Your task to perform on an android device: Search for "razer blade" on newegg, select the first entry, and add it to the cart. Image 0: 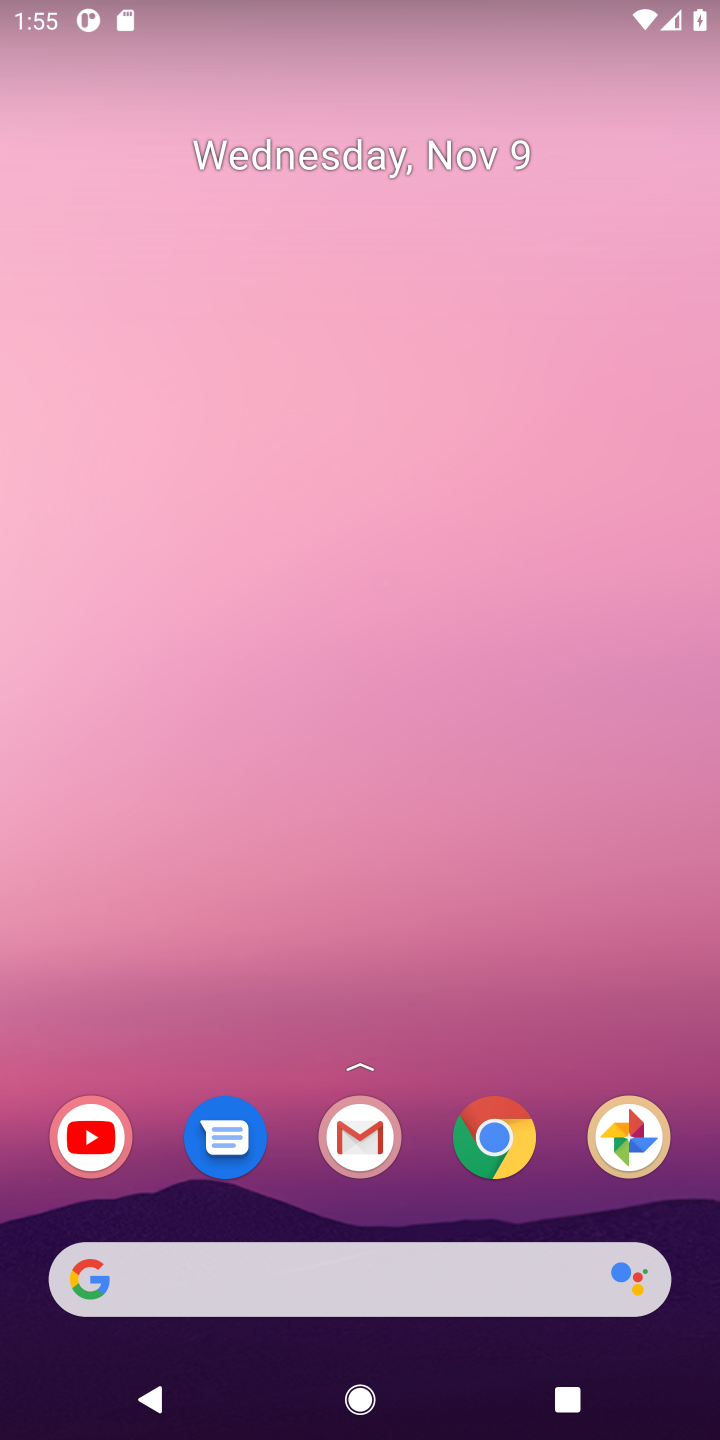
Step 0: drag from (358, 1043) to (403, 238)
Your task to perform on an android device: Search for "razer blade" on newegg, select the first entry, and add it to the cart. Image 1: 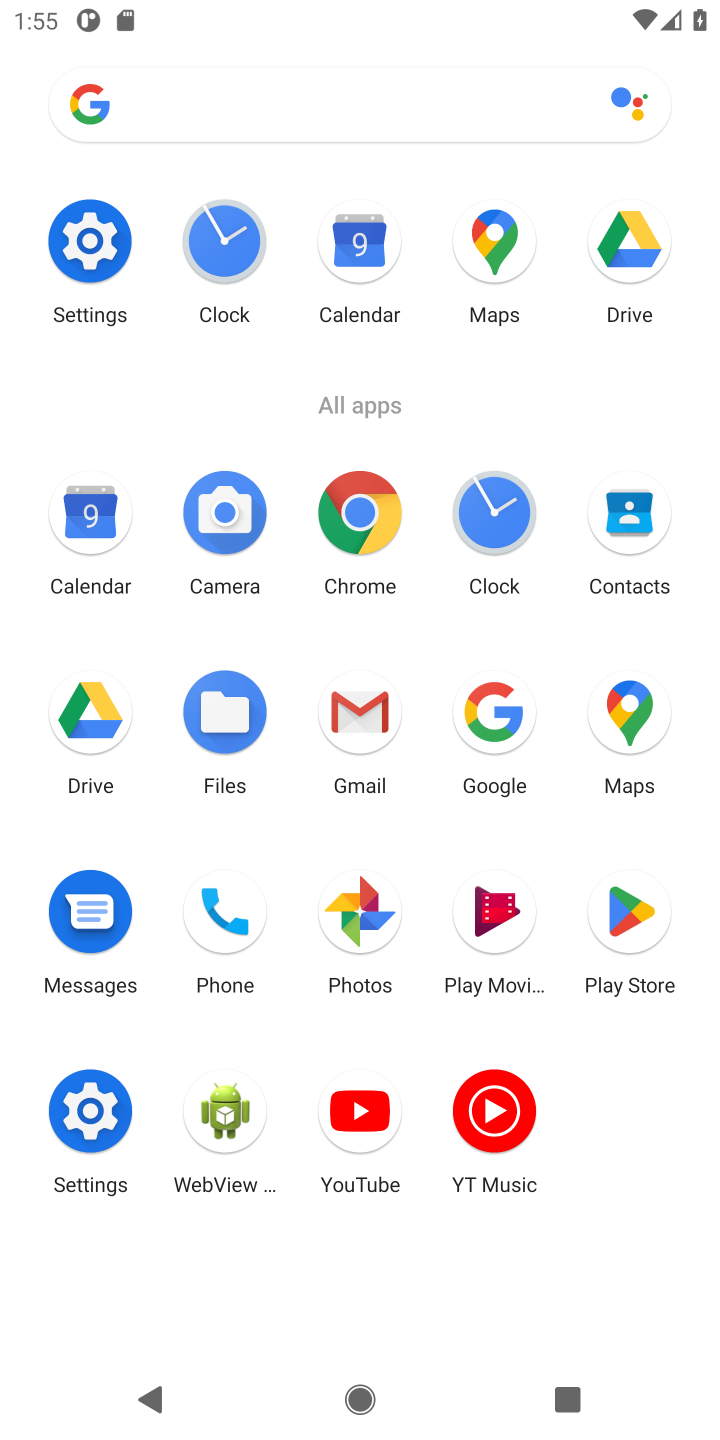
Step 1: click (381, 525)
Your task to perform on an android device: Search for "razer blade" on newegg, select the first entry, and add it to the cart. Image 2: 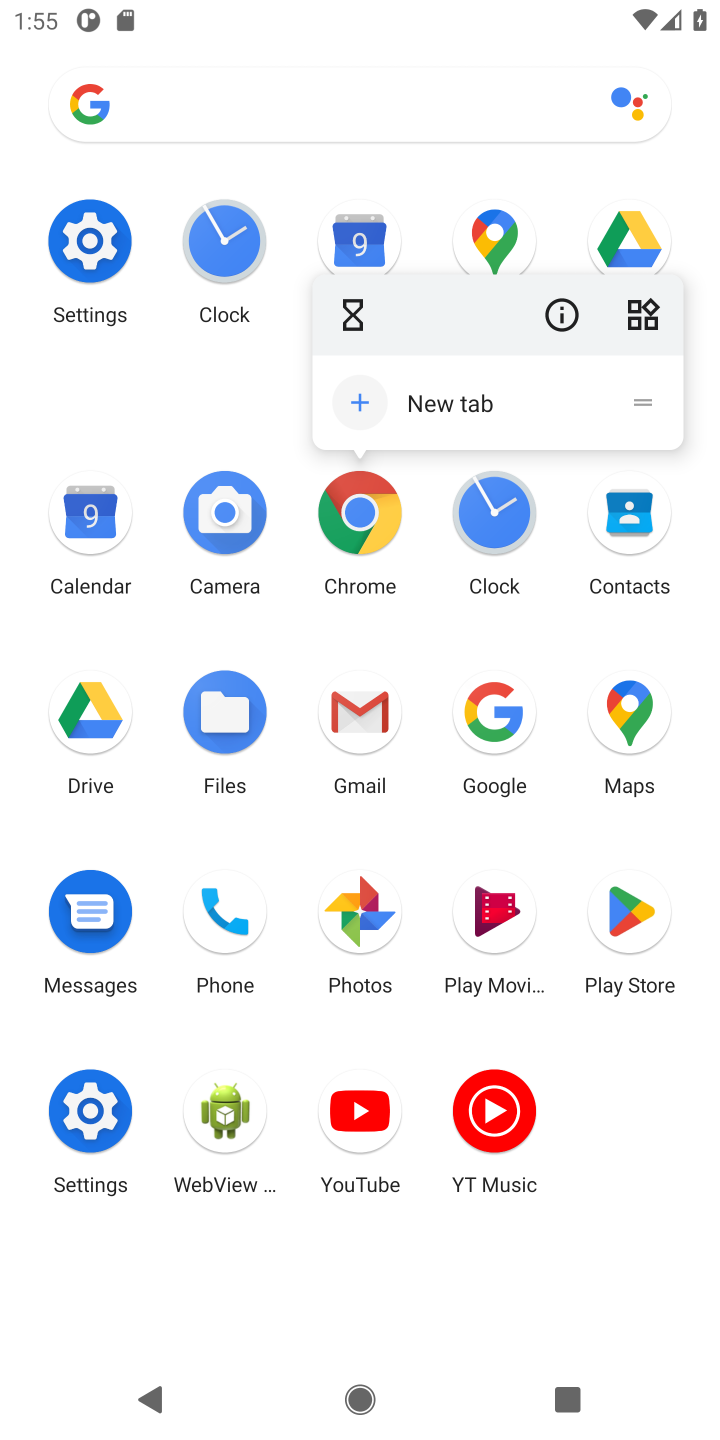
Step 2: click (381, 525)
Your task to perform on an android device: Search for "razer blade" on newegg, select the first entry, and add it to the cart. Image 3: 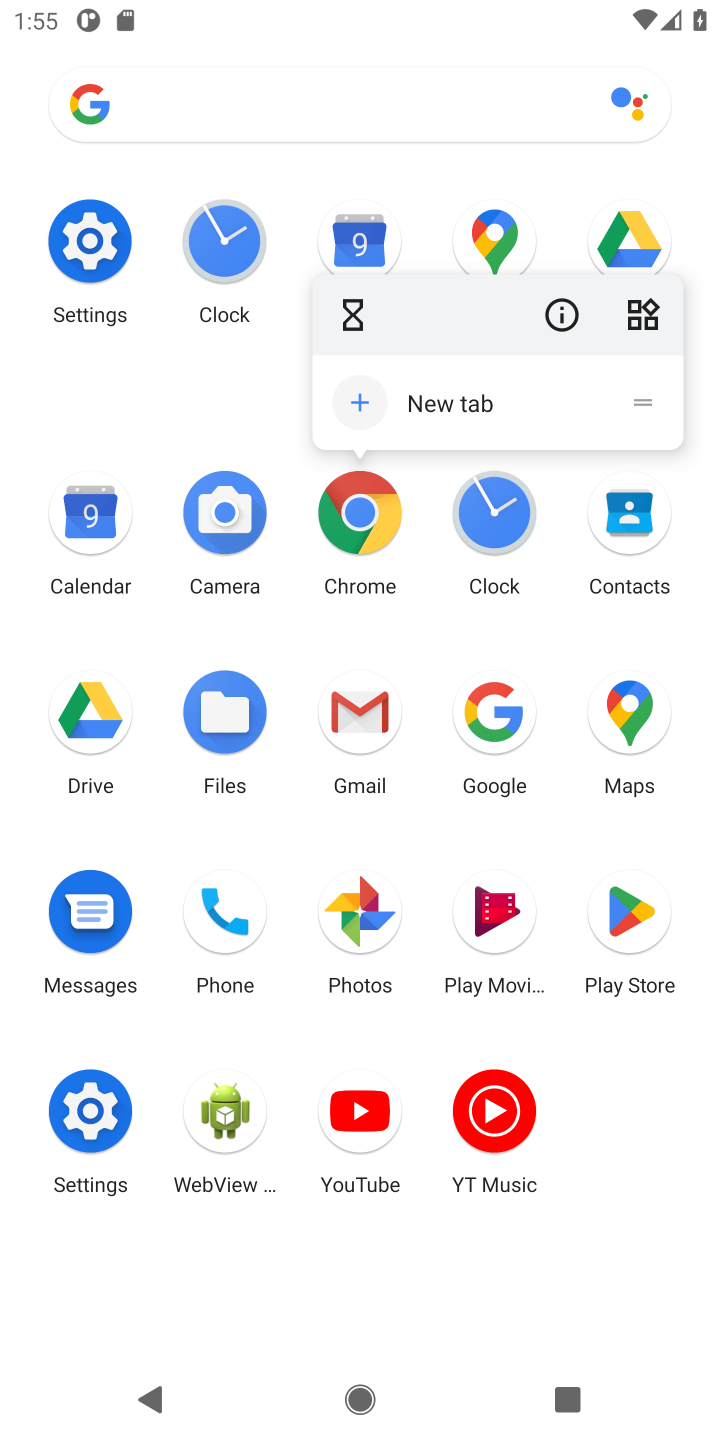
Step 3: click (381, 525)
Your task to perform on an android device: Search for "razer blade" on newegg, select the first entry, and add it to the cart. Image 4: 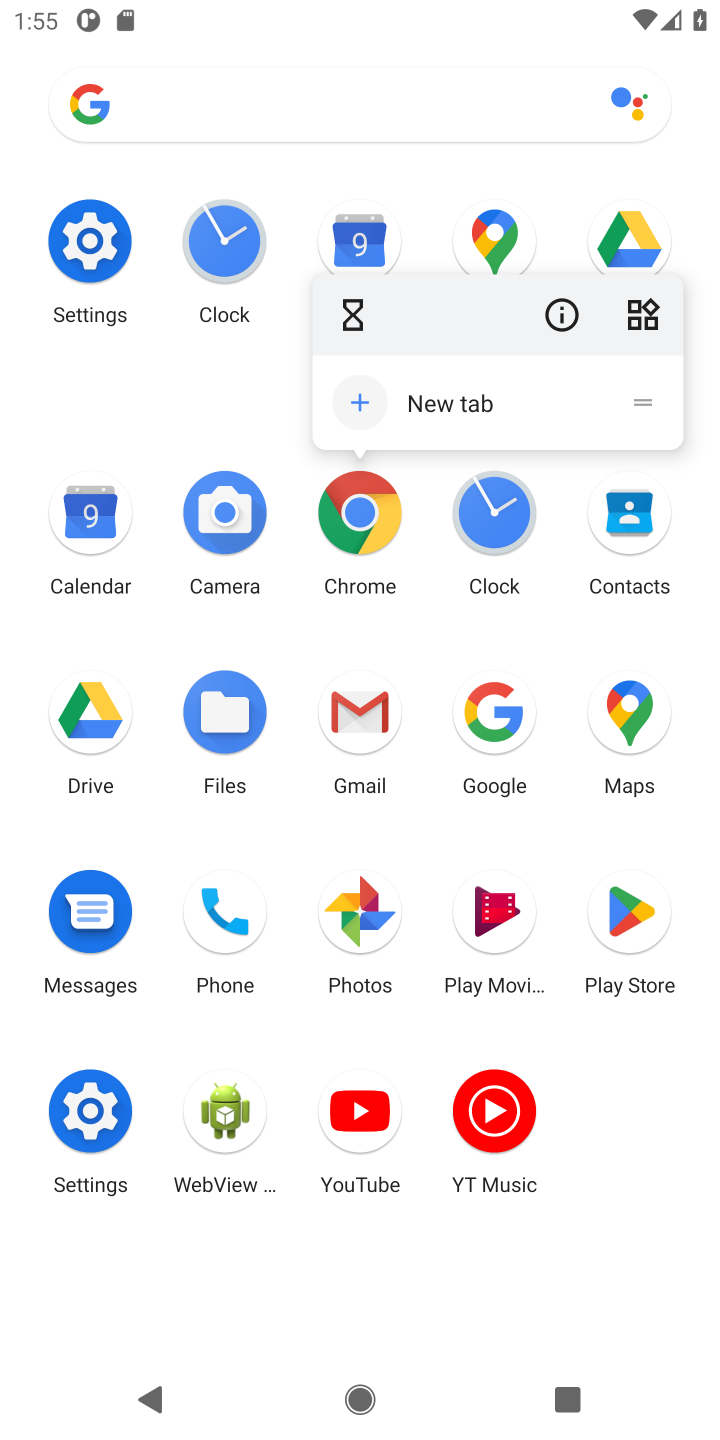
Step 4: click (361, 517)
Your task to perform on an android device: Search for "razer blade" on newegg, select the first entry, and add it to the cart. Image 5: 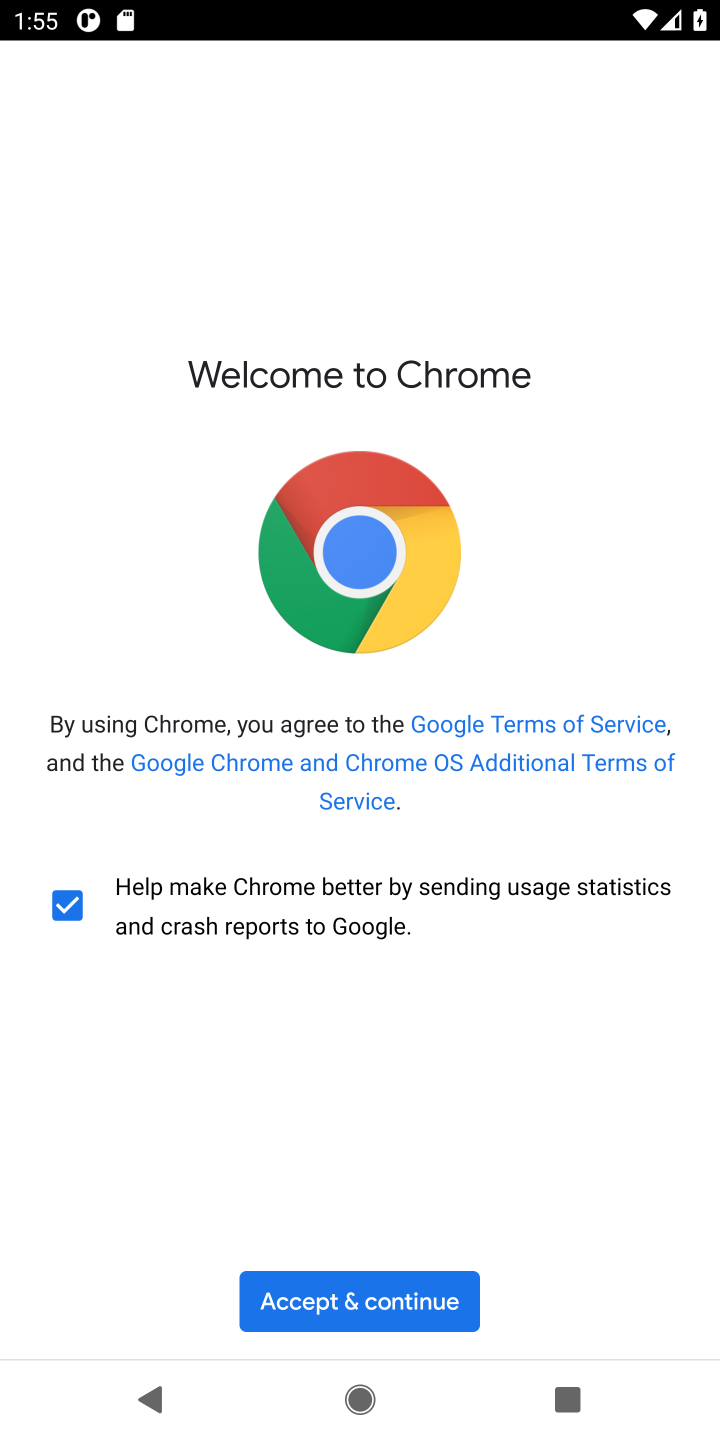
Step 5: click (313, 1278)
Your task to perform on an android device: Search for "razer blade" on newegg, select the first entry, and add it to the cart. Image 6: 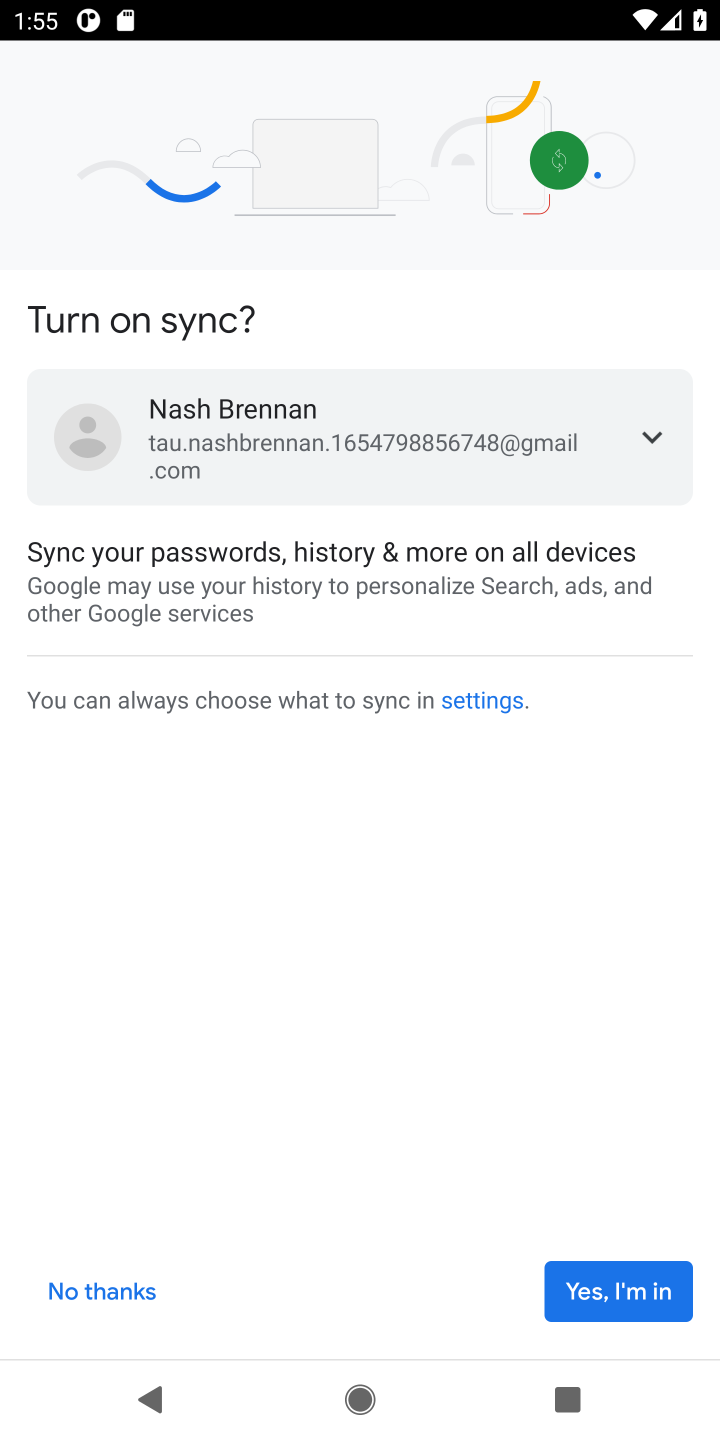
Step 6: click (589, 1283)
Your task to perform on an android device: Search for "razer blade" on newegg, select the first entry, and add it to the cart. Image 7: 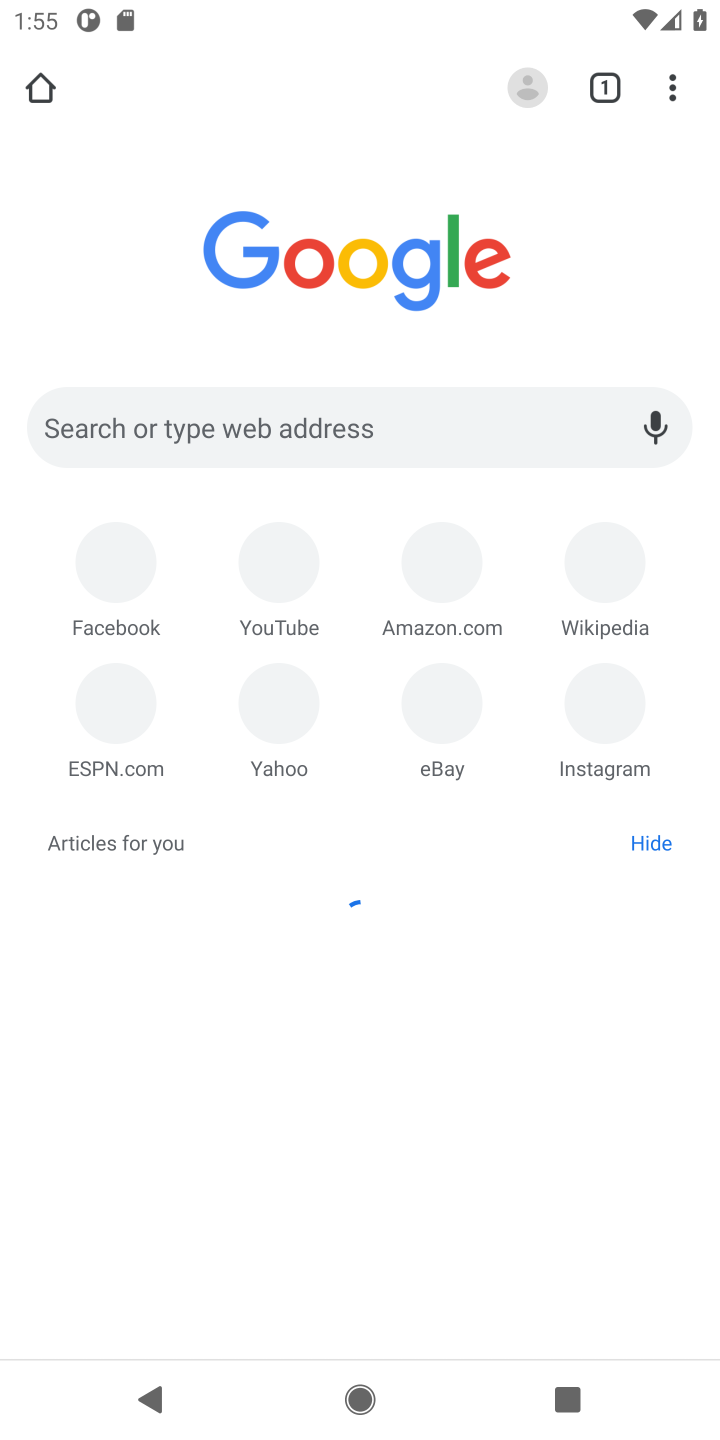
Step 7: click (342, 422)
Your task to perform on an android device: Search for "razer blade" on newegg, select the first entry, and add it to the cart. Image 8: 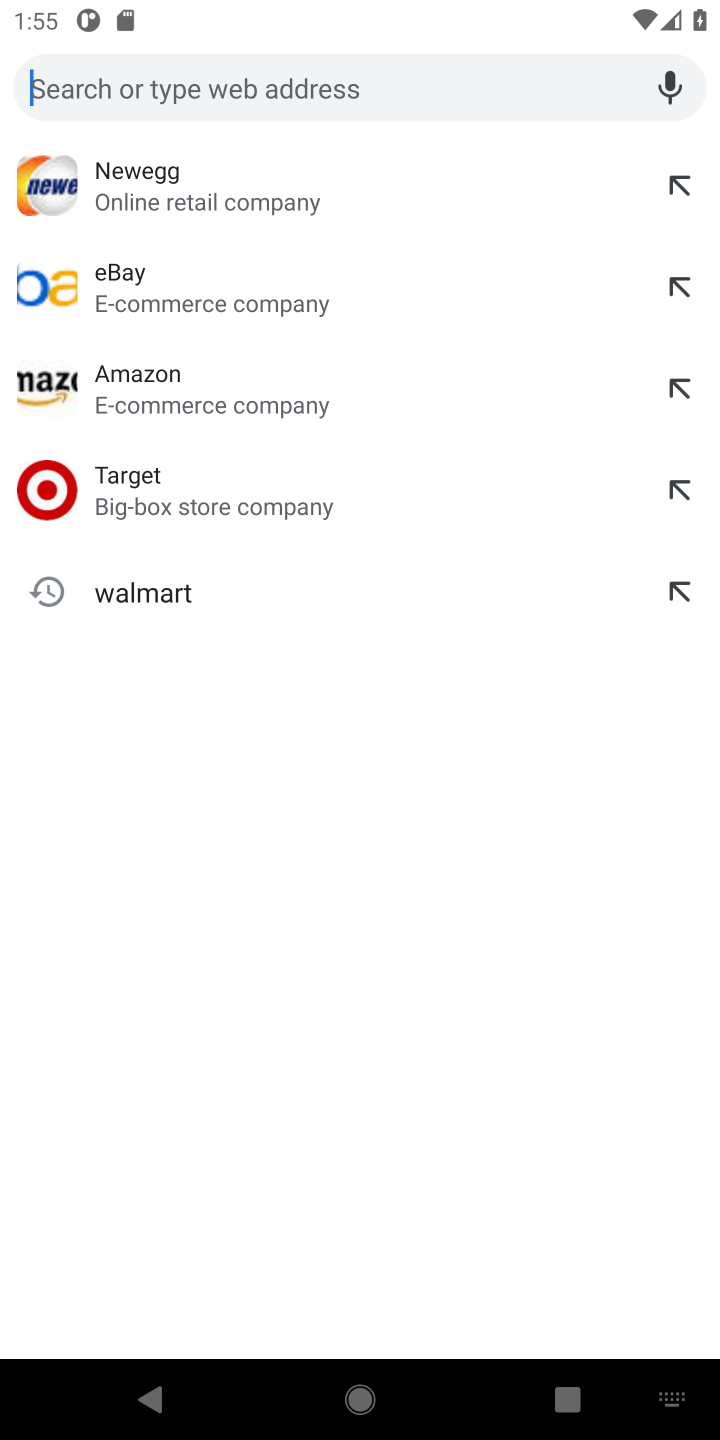
Step 8: type "newegg"
Your task to perform on an android device: Search for "razer blade" on newegg, select the first entry, and add it to the cart. Image 9: 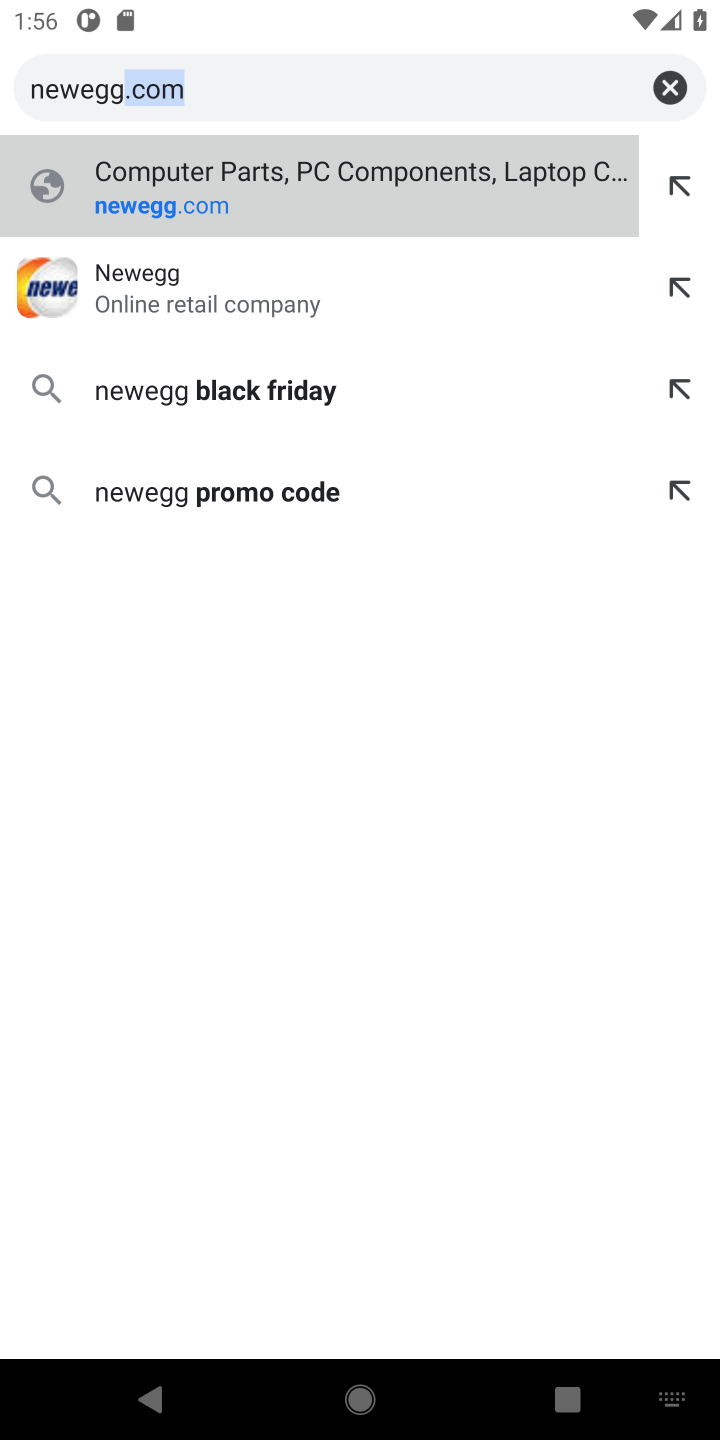
Step 9: press enter
Your task to perform on an android device: Search for "razer blade" on newegg, select the first entry, and add it to the cart. Image 10: 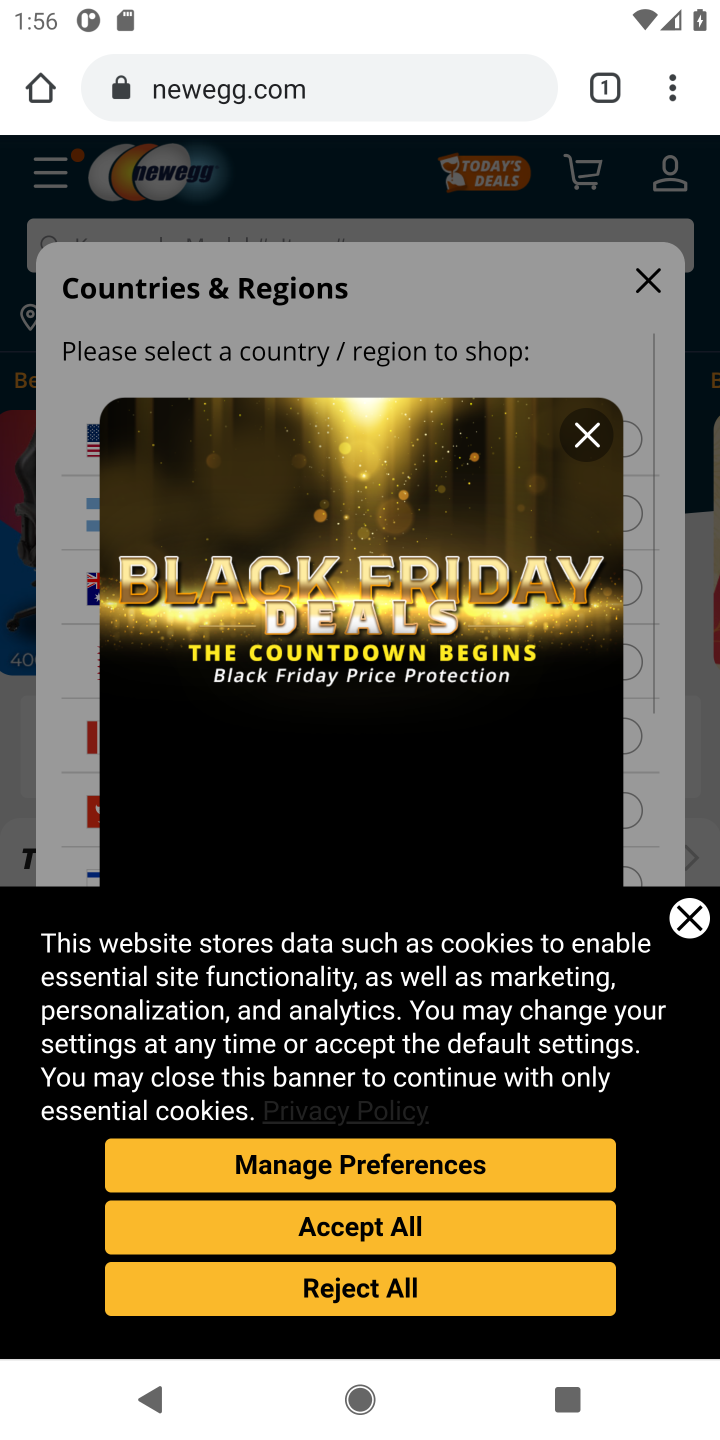
Step 10: click (317, 1241)
Your task to perform on an android device: Search for "razer blade" on newegg, select the first entry, and add it to the cart. Image 11: 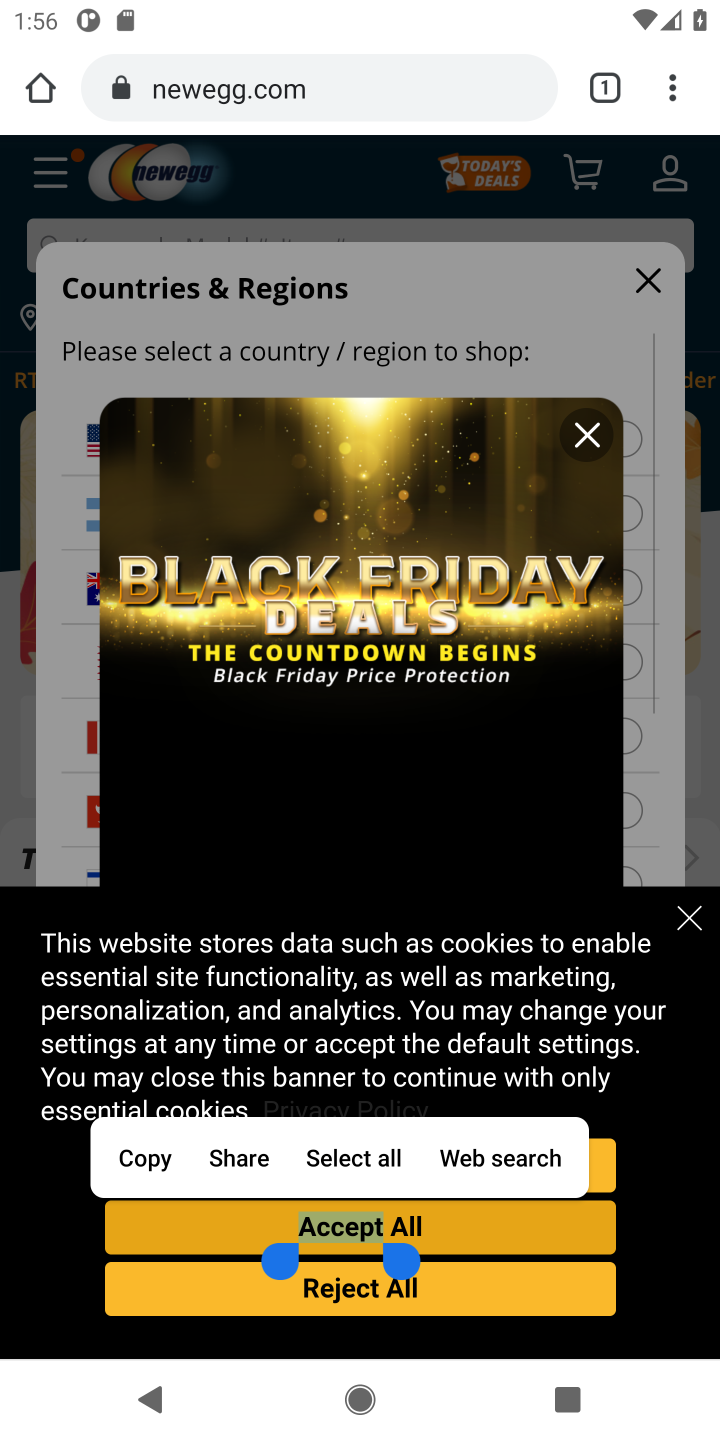
Step 11: click (173, 1212)
Your task to perform on an android device: Search for "razer blade" on newegg, select the first entry, and add it to the cart. Image 12: 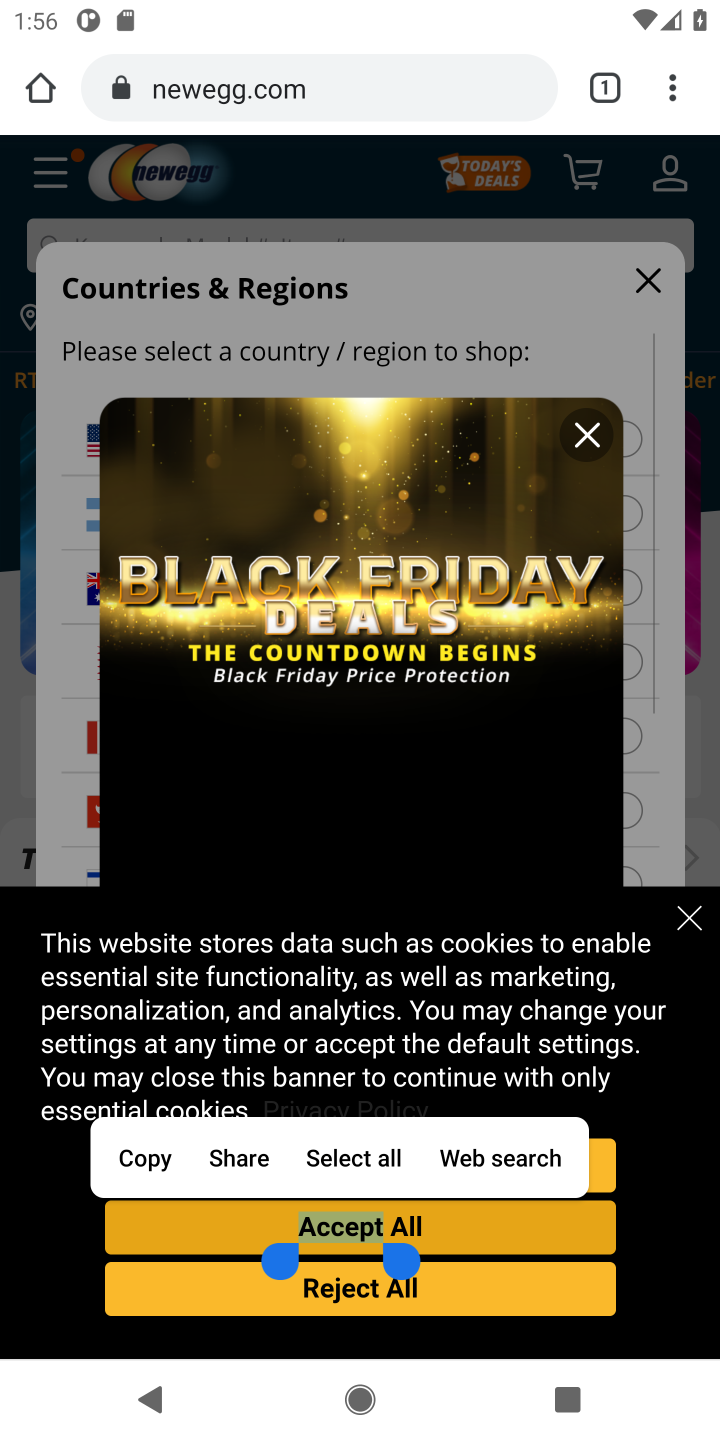
Step 12: click (220, 1241)
Your task to perform on an android device: Search for "razer blade" on newegg, select the first entry, and add it to the cart. Image 13: 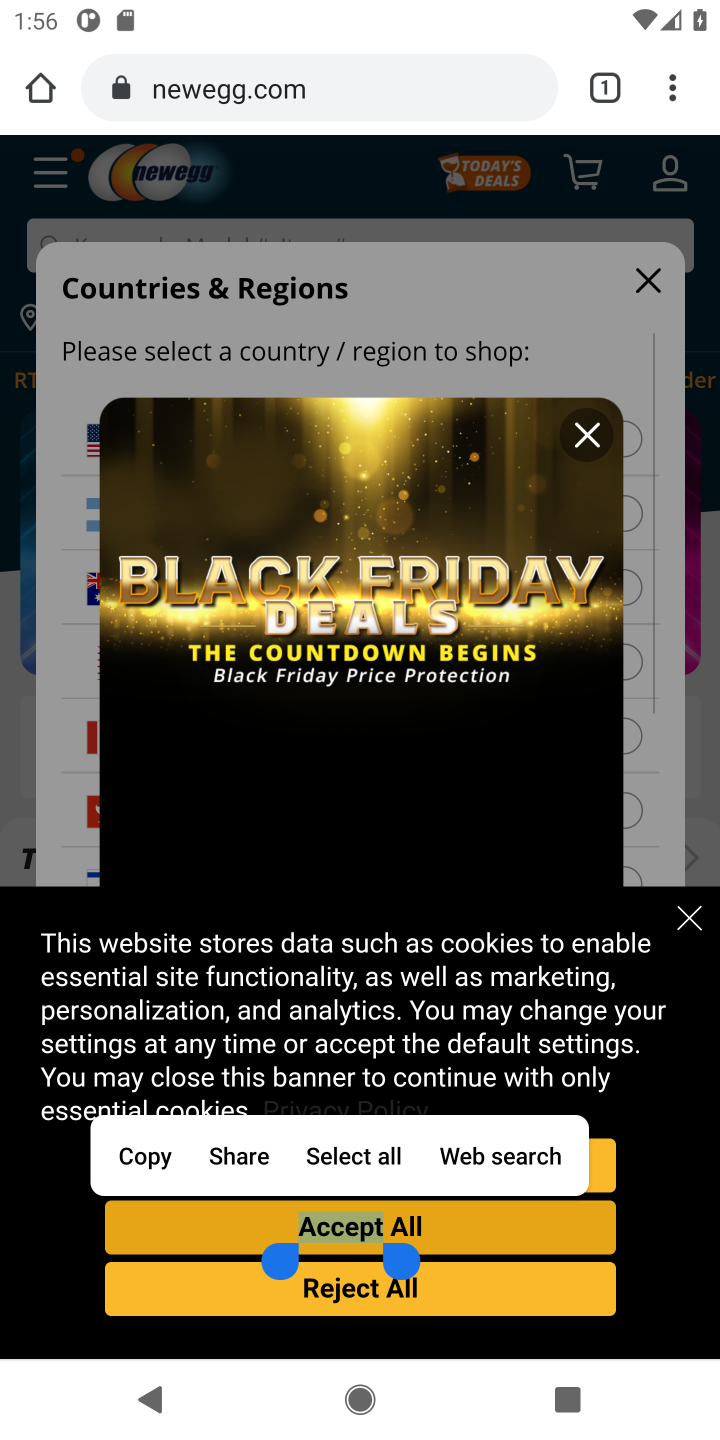
Step 13: click (219, 1241)
Your task to perform on an android device: Search for "razer blade" on newegg, select the first entry, and add it to the cart. Image 14: 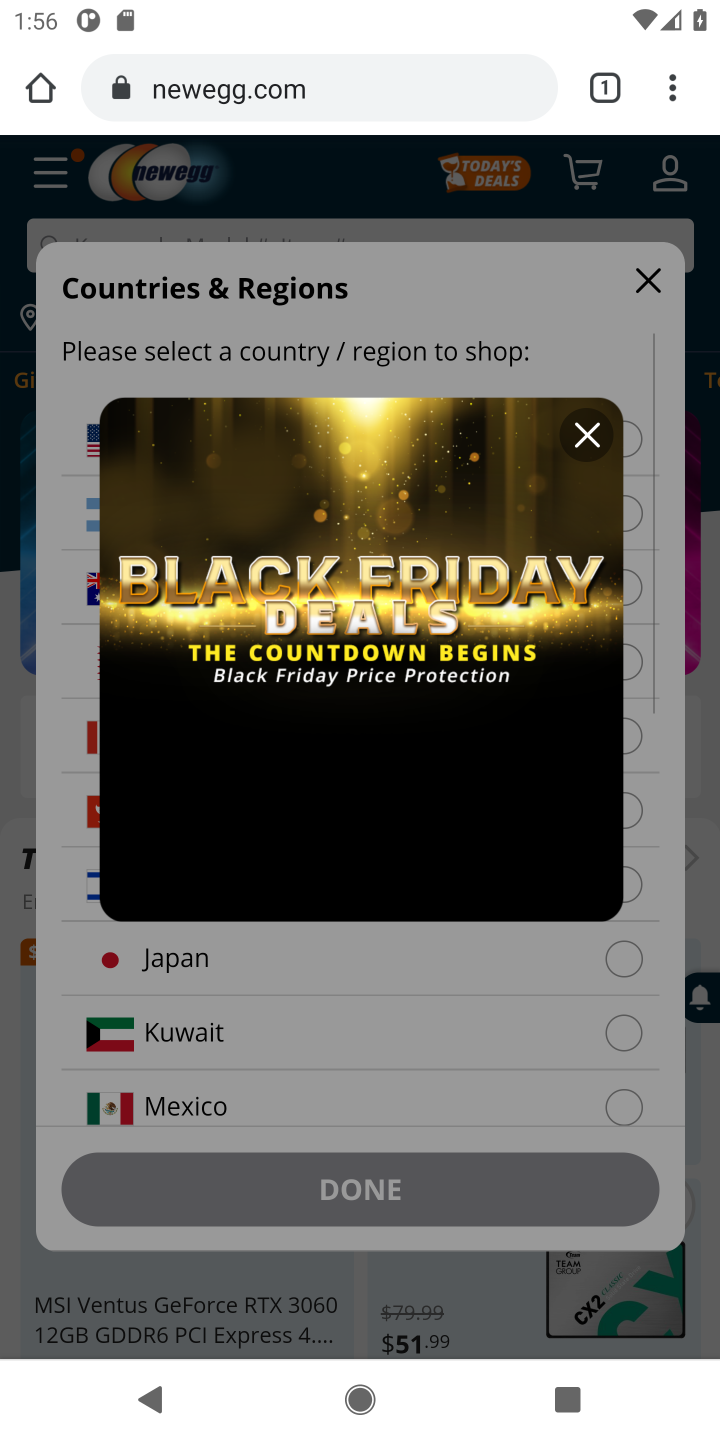
Step 14: click (570, 448)
Your task to perform on an android device: Search for "razer blade" on newegg, select the first entry, and add it to the cart. Image 15: 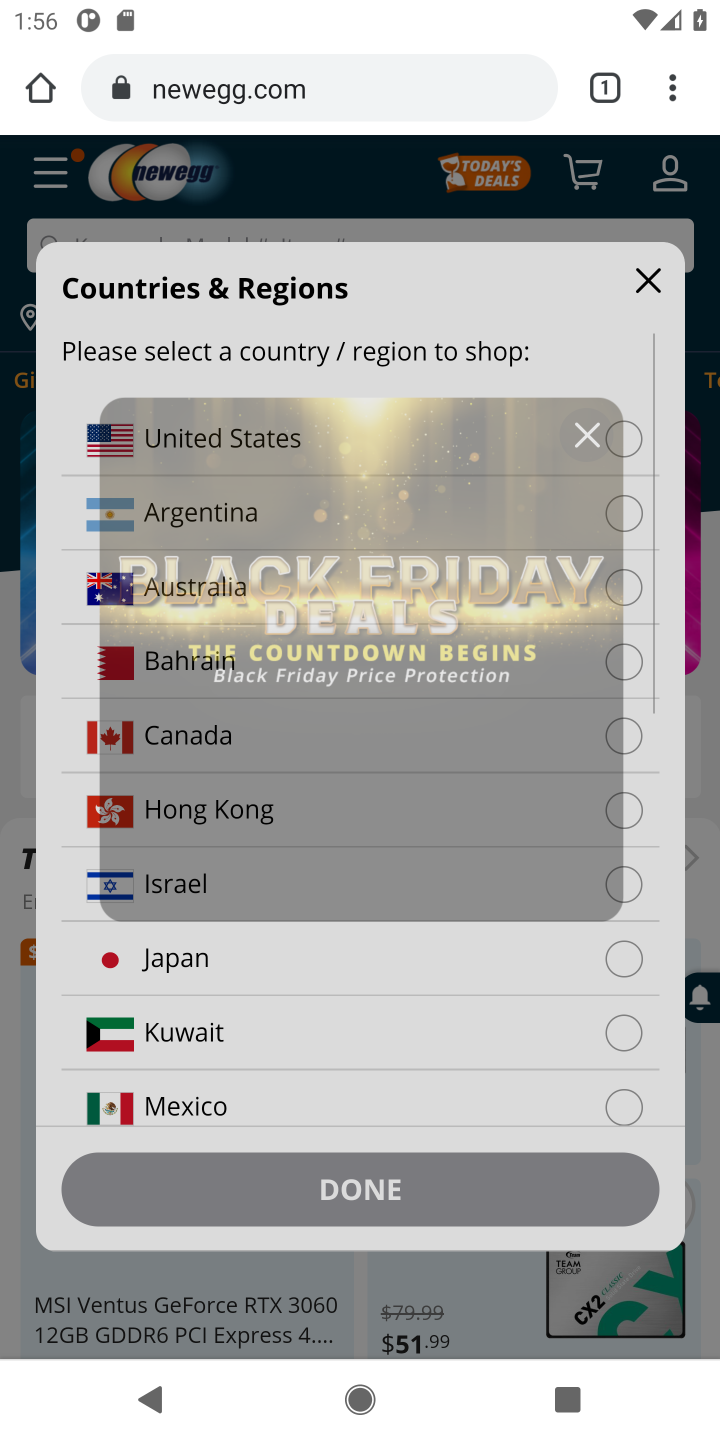
Step 15: click (585, 444)
Your task to perform on an android device: Search for "razer blade" on newegg, select the first entry, and add it to the cart. Image 16: 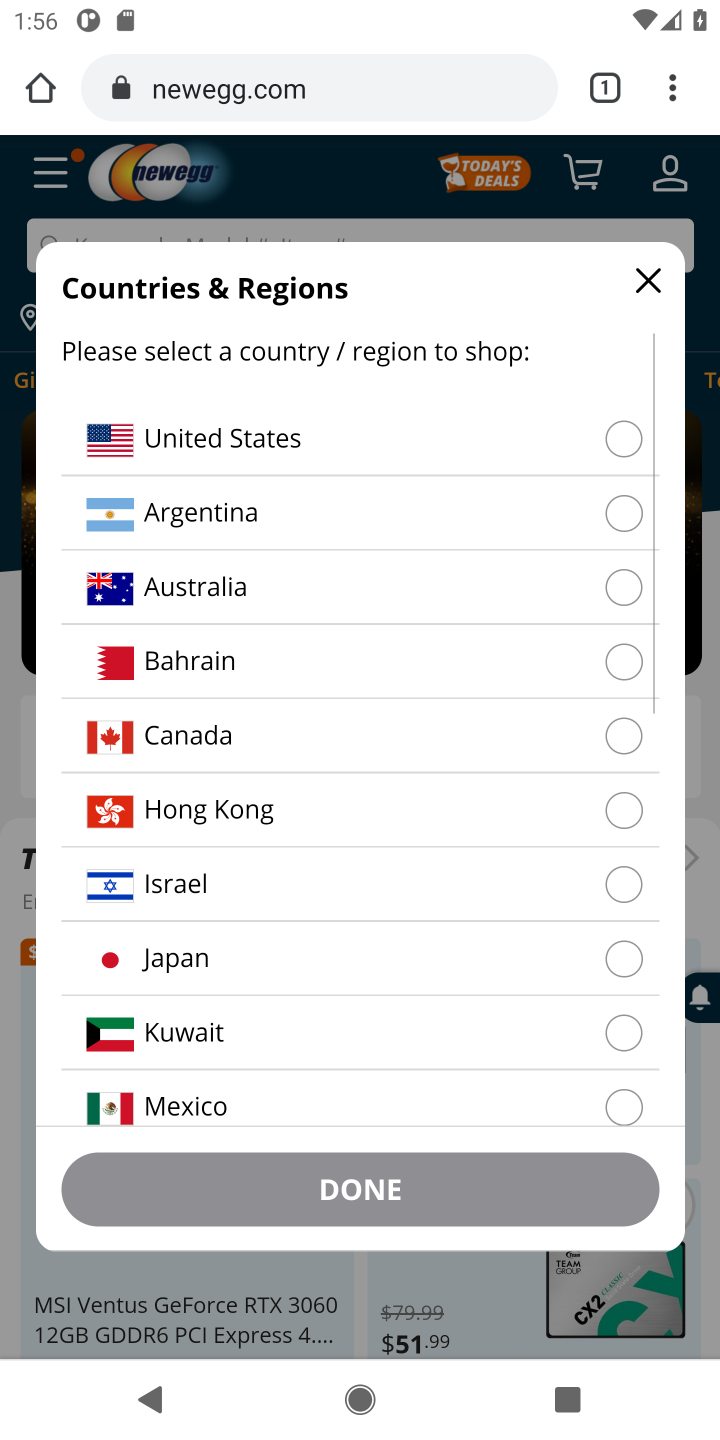
Step 16: click (581, 444)
Your task to perform on an android device: Search for "razer blade" on newegg, select the first entry, and add it to the cart. Image 17: 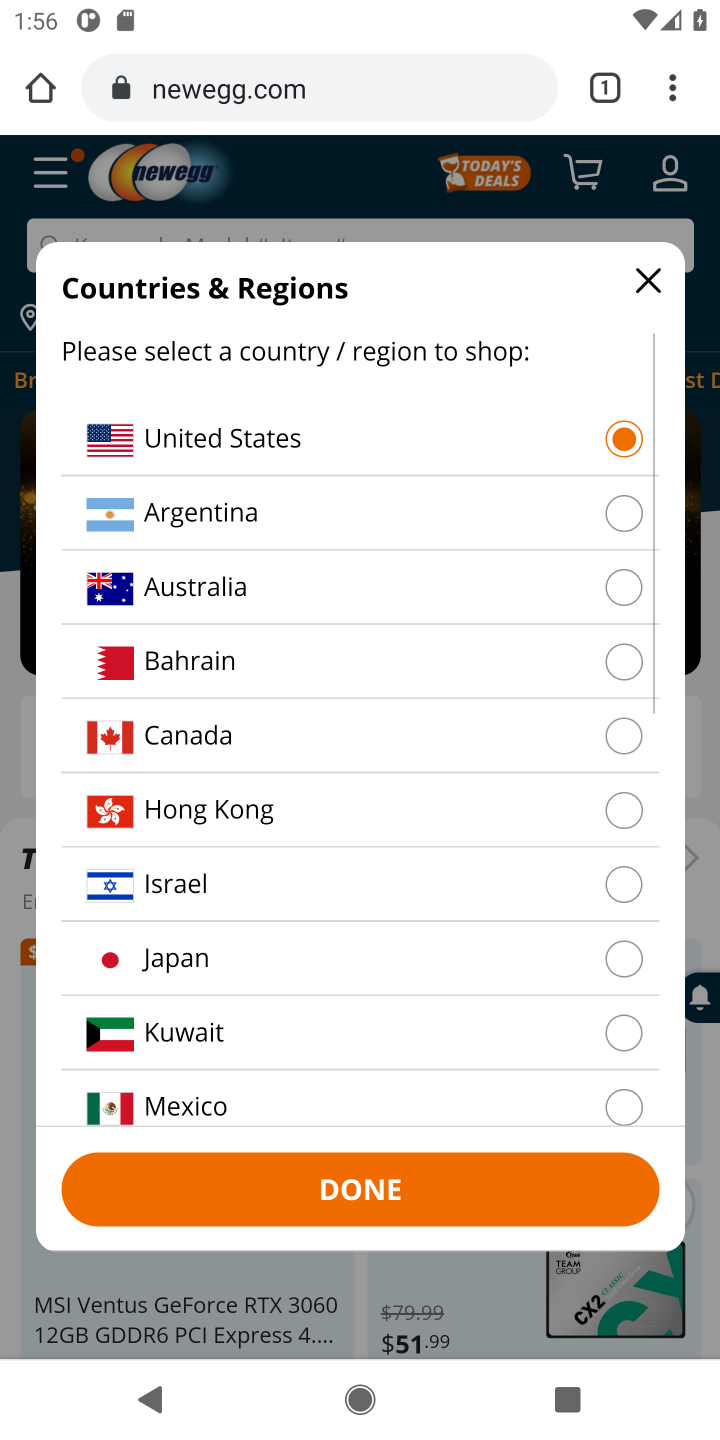
Step 17: click (576, 449)
Your task to perform on an android device: Search for "razer blade" on newegg, select the first entry, and add it to the cart. Image 18: 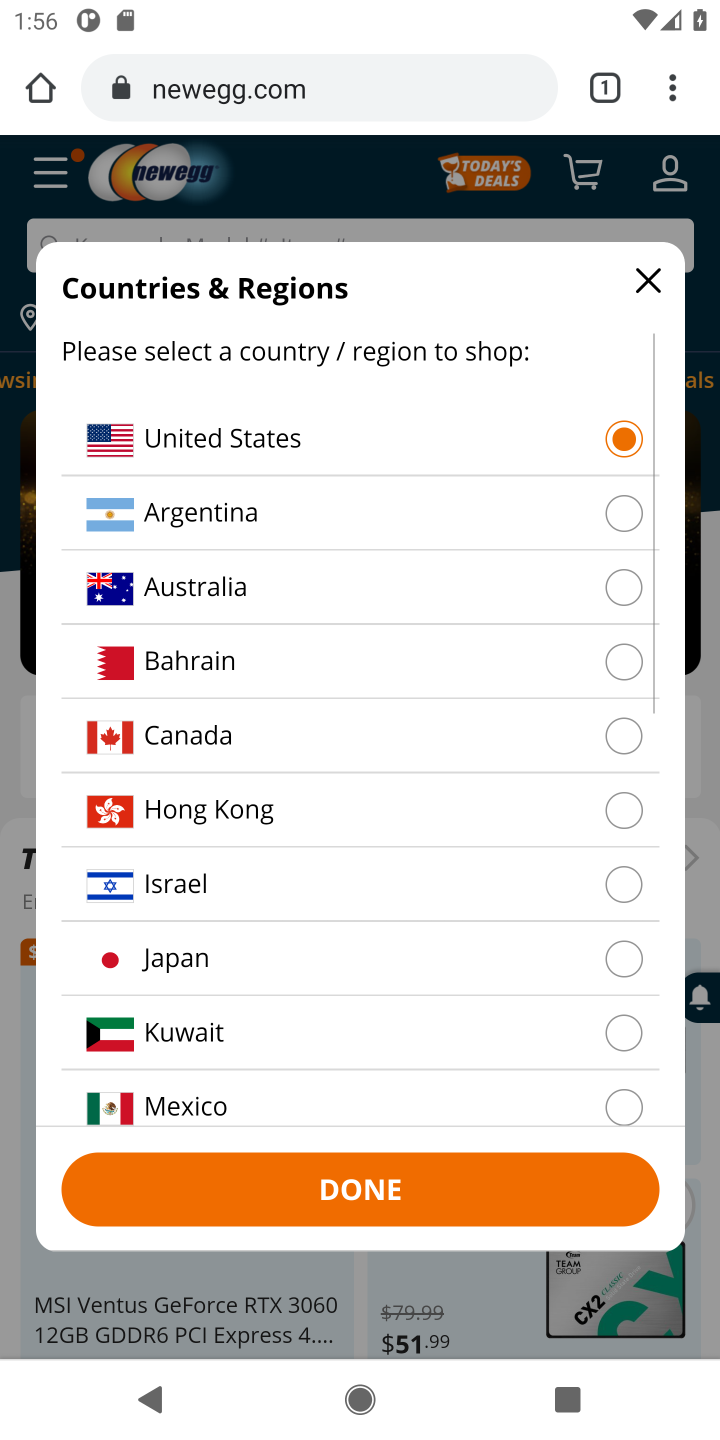
Step 18: click (370, 1207)
Your task to perform on an android device: Search for "razer blade" on newegg, select the first entry, and add it to the cart. Image 19: 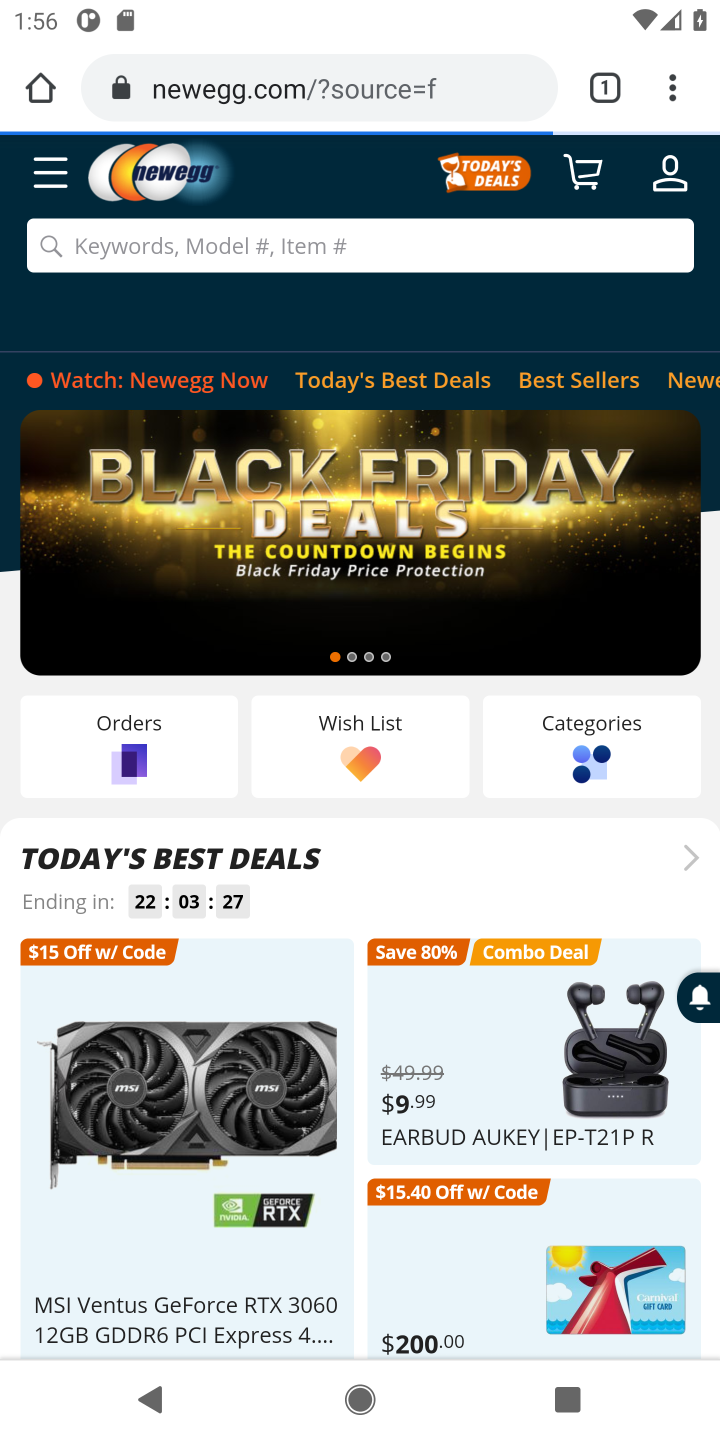
Step 19: click (234, 259)
Your task to perform on an android device: Search for "razer blade" on newegg, select the first entry, and add it to the cart. Image 20: 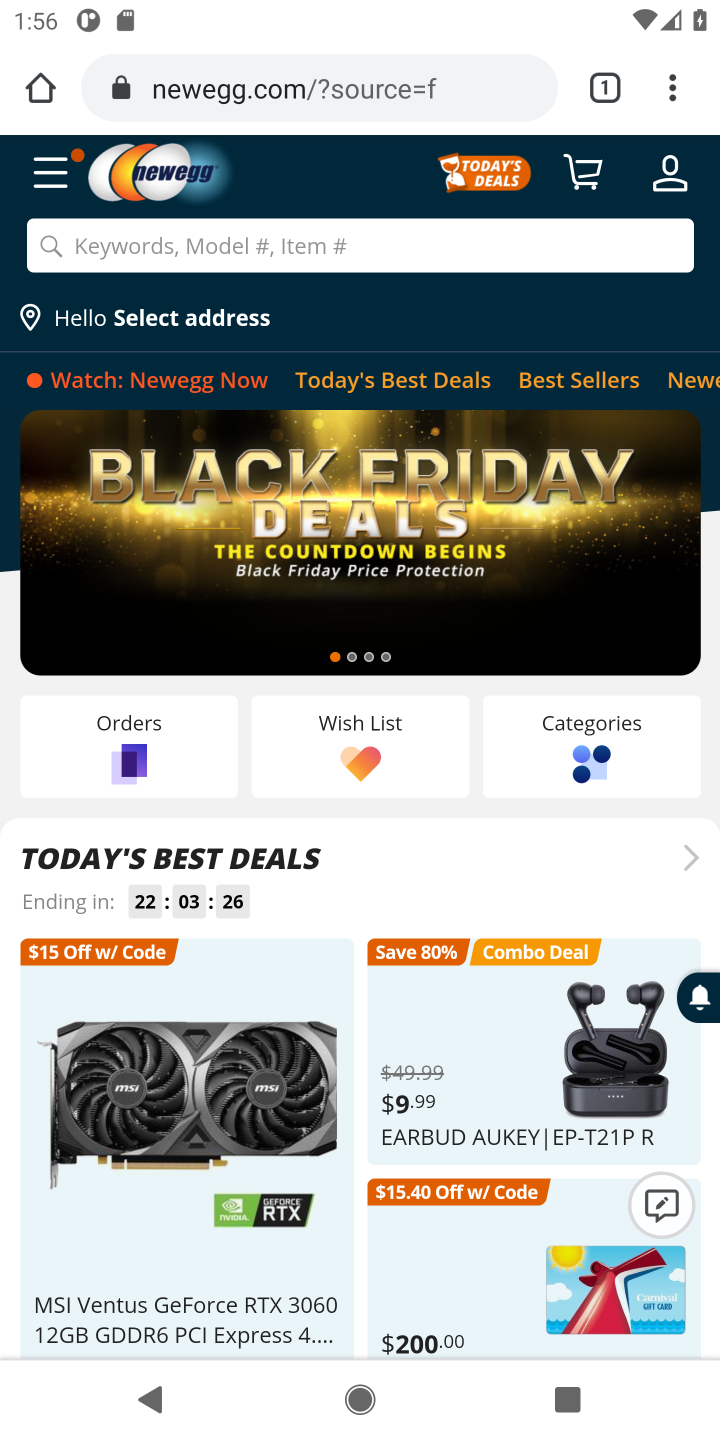
Step 20: click (231, 251)
Your task to perform on an android device: Search for "razer blade" on newegg, select the first entry, and add it to the cart. Image 21: 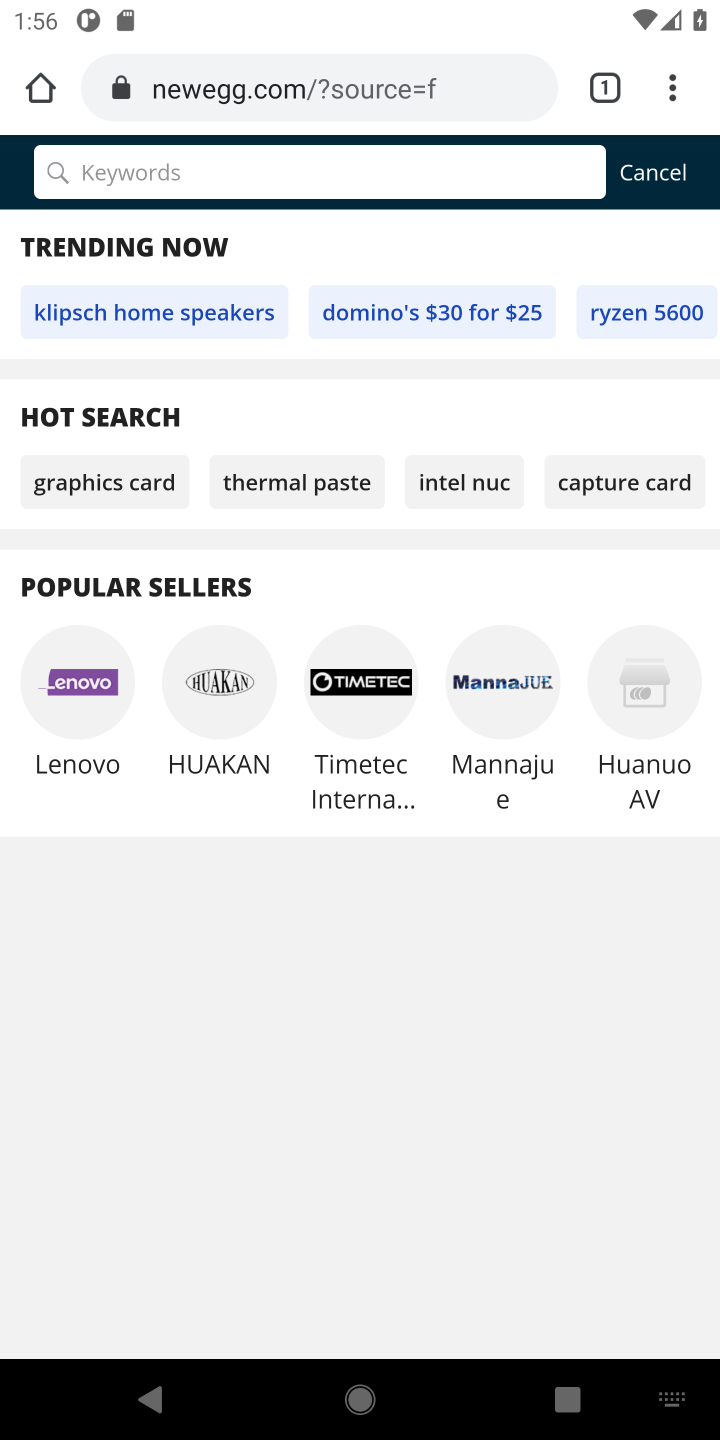
Step 21: type "razer blade"
Your task to perform on an android device: Search for "razer blade" on newegg, select the first entry, and add it to the cart. Image 22: 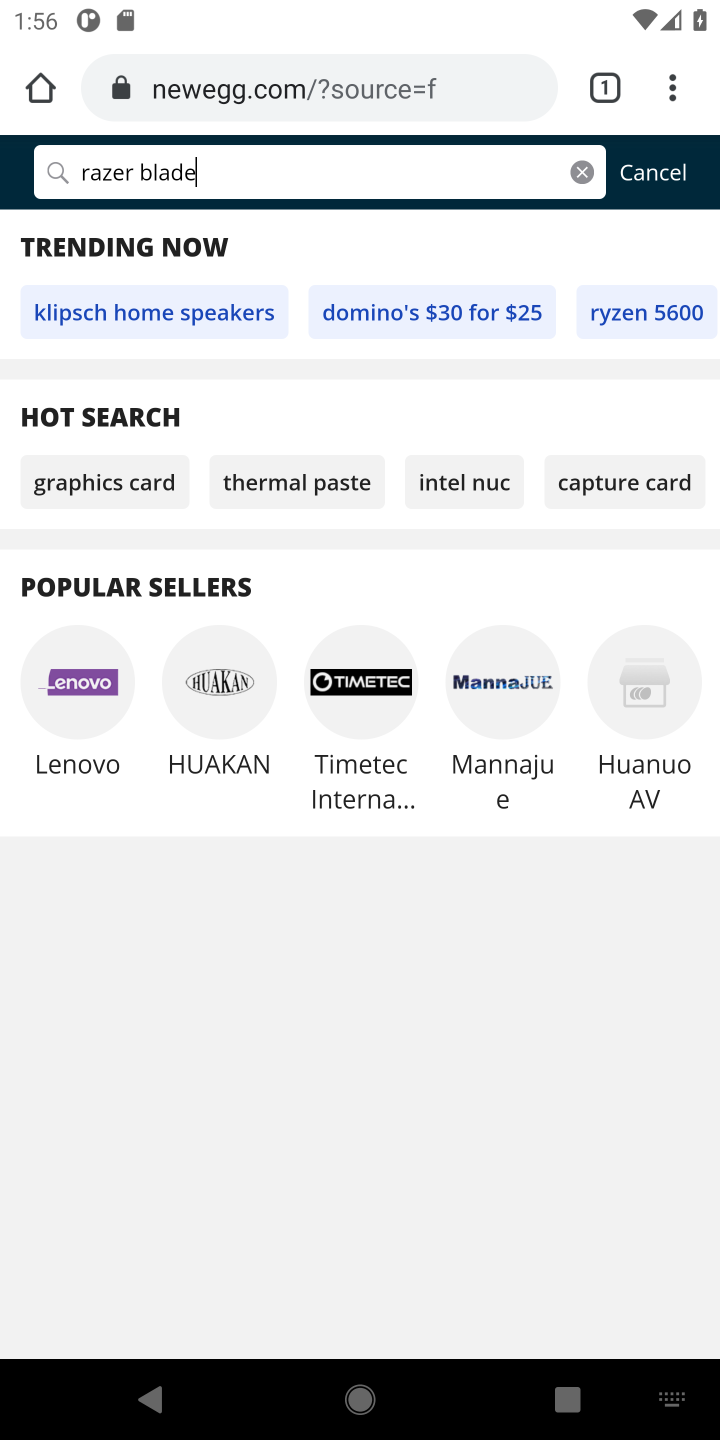
Step 22: press enter
Your task to perform on an android device: Search for "razer blade" on newegg, select the first entry, and add it to the cart. Image 23: 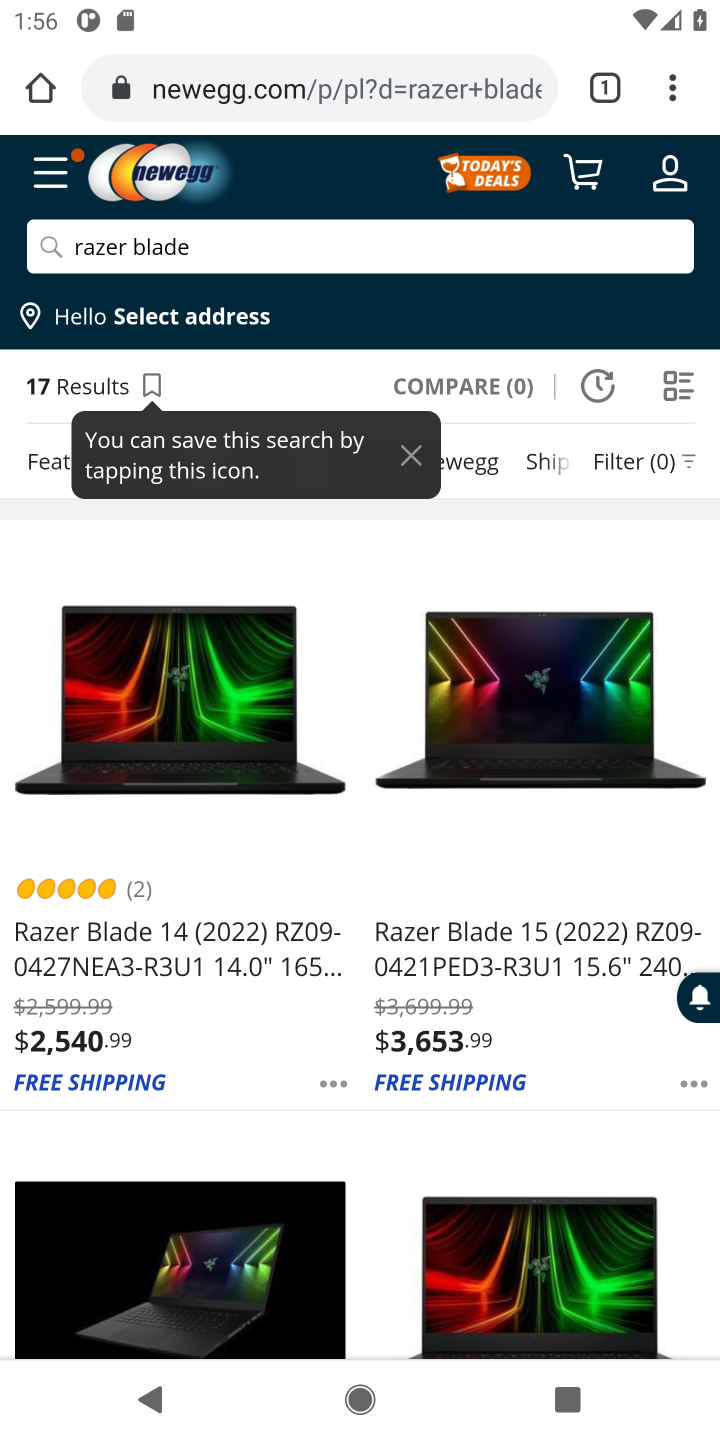
Step 23: click (74, 930)
Your task to perform on an android device: Search for "razer blade" on newegg, select the first entry, and add it to the cart. Image 24: 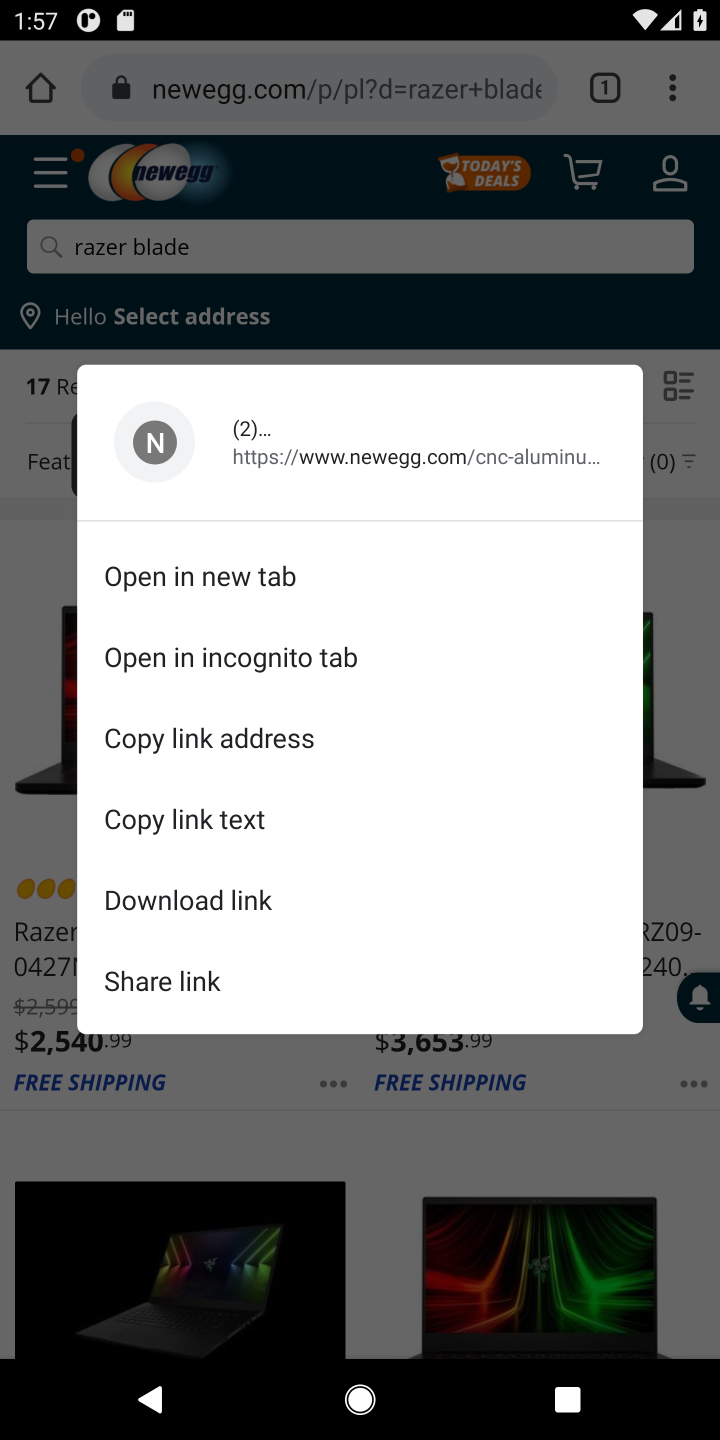
Step 24: click (26, 428)
Your task to perform on an android device: Search for "razer blade" on newegg, select the first entry, and add it to the cart. Image 25: 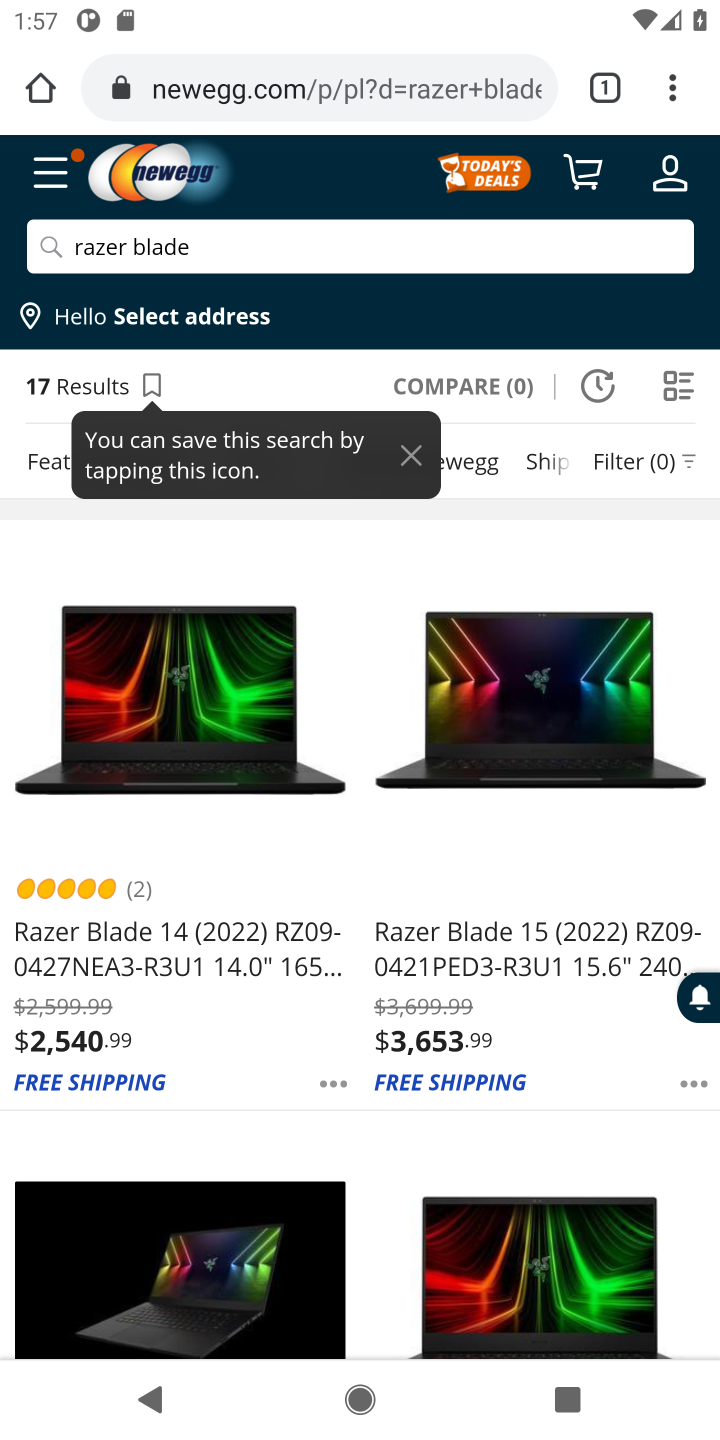
Step 25: click (90, 913)
Your task to perform on an android device: Search for "razer blade" on newegg, select the first entry, and add it to the cart. Image 26: 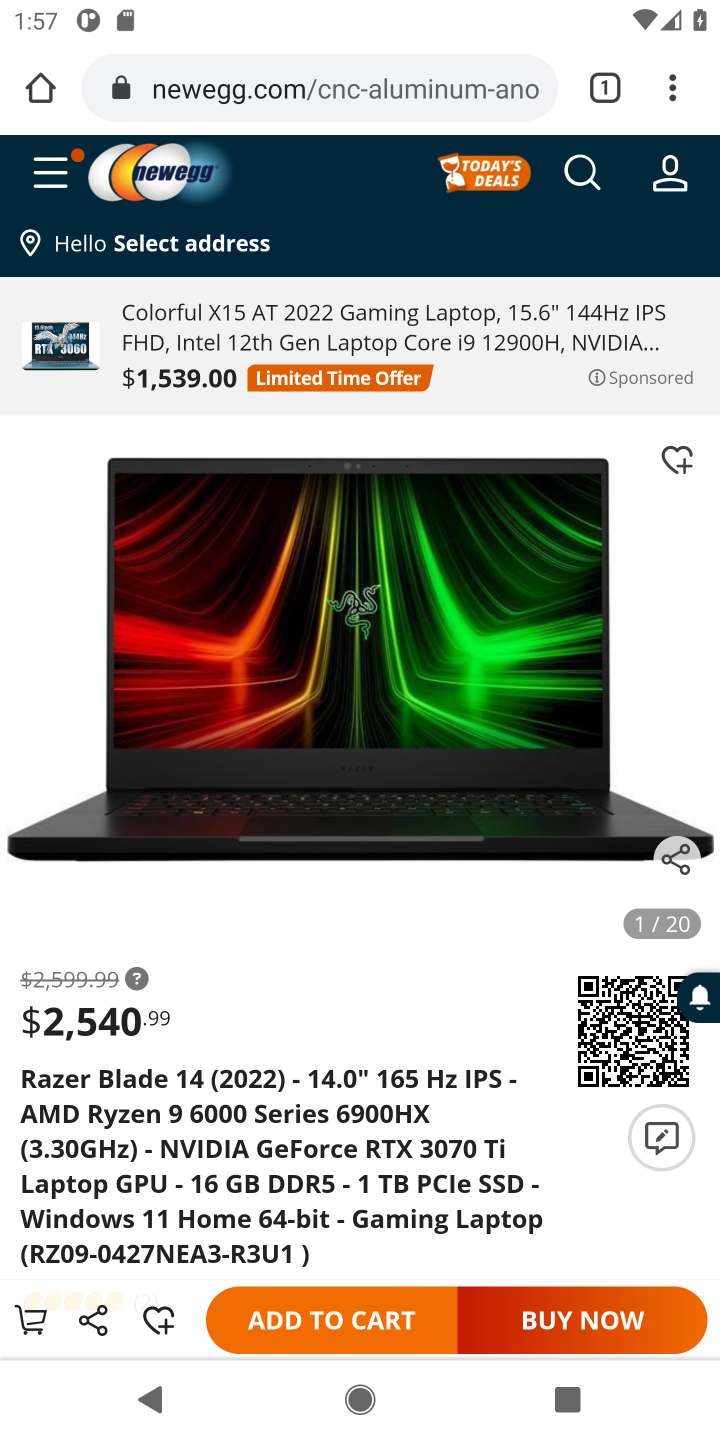
Step 26: click (325, 1314)
Your task to perform on an android device: Search for "razer blade" on newegg, select the first entry, and add it to the cart. Image 27: 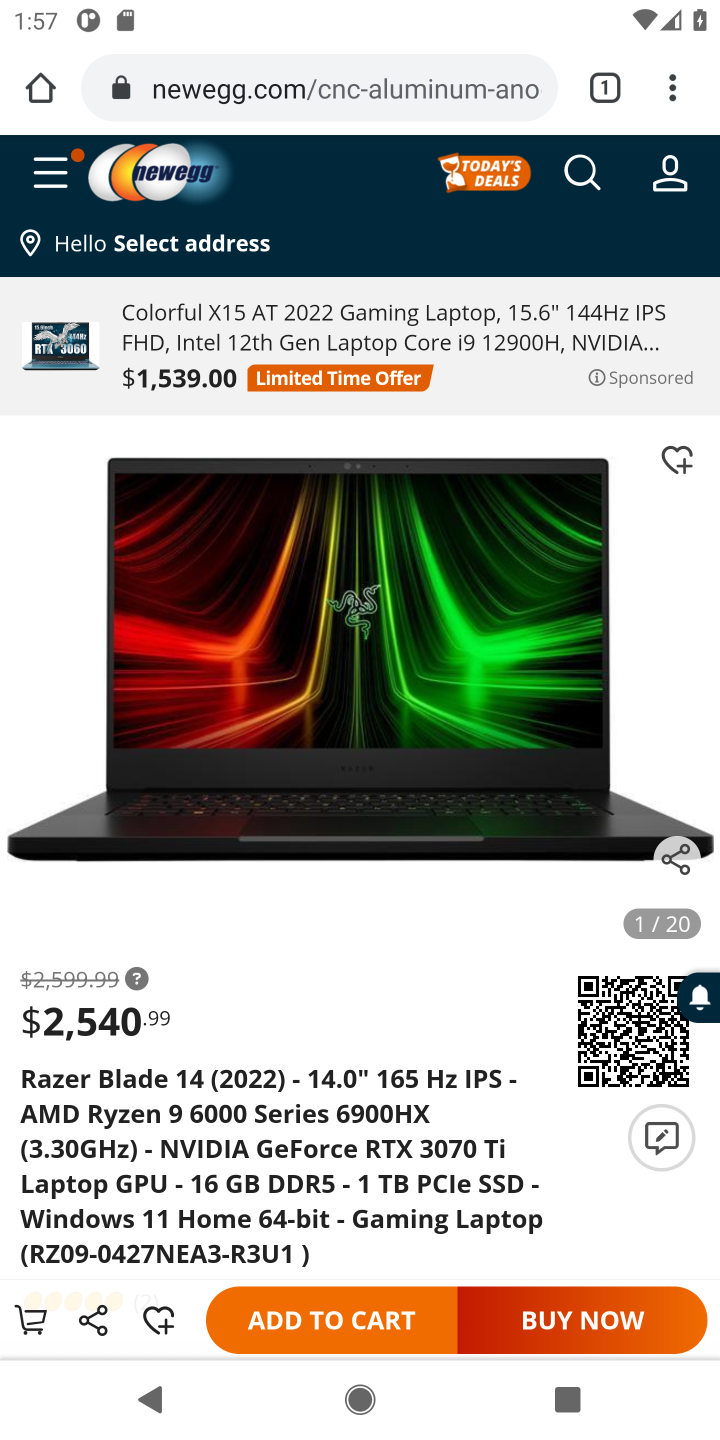
Step 27: click (334, 1316)
Your task to perform on an android device: Search for "razer blade" on newegg, select the first entry, and add it to the cart. Image 28: 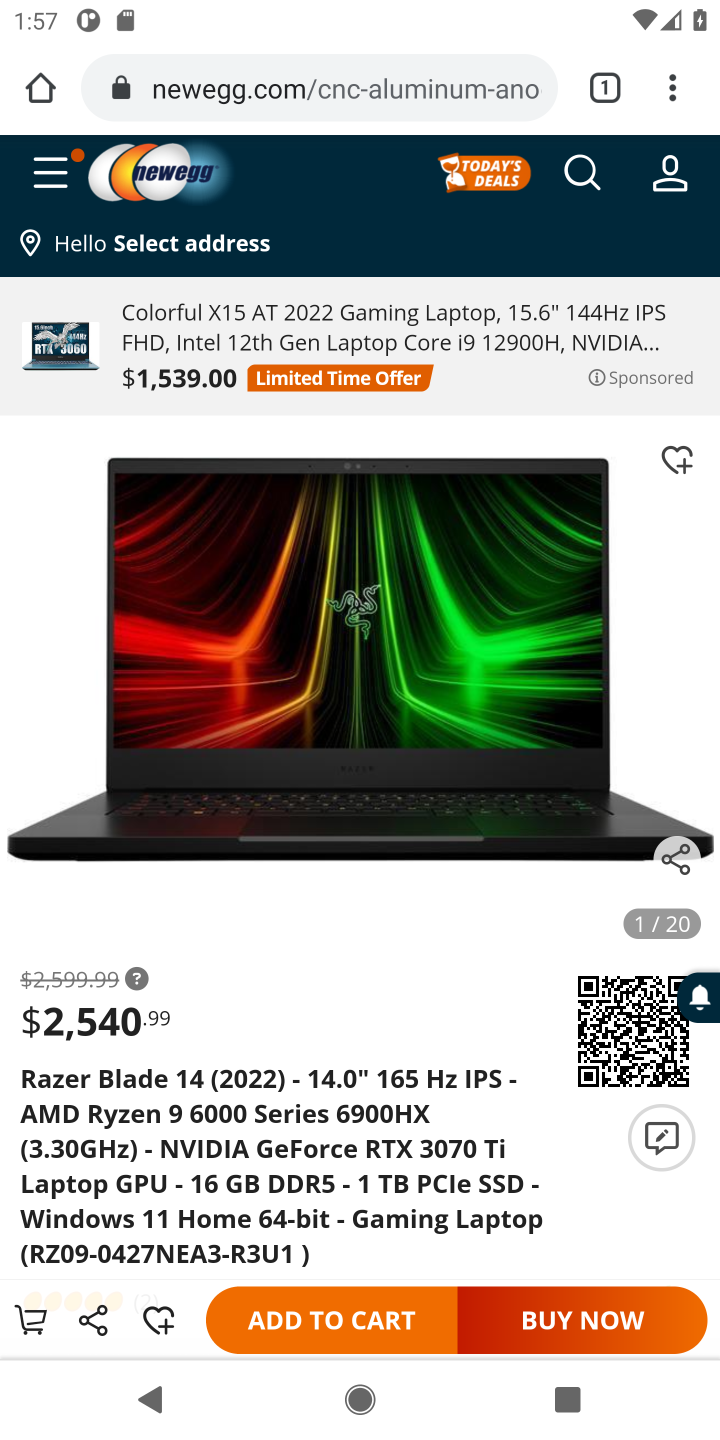
Step 28: click (334, 1313)
Your task to perform on an android device: Search for "razer blade" on newegg, select the first entry, and add it to the cart. Image 29: 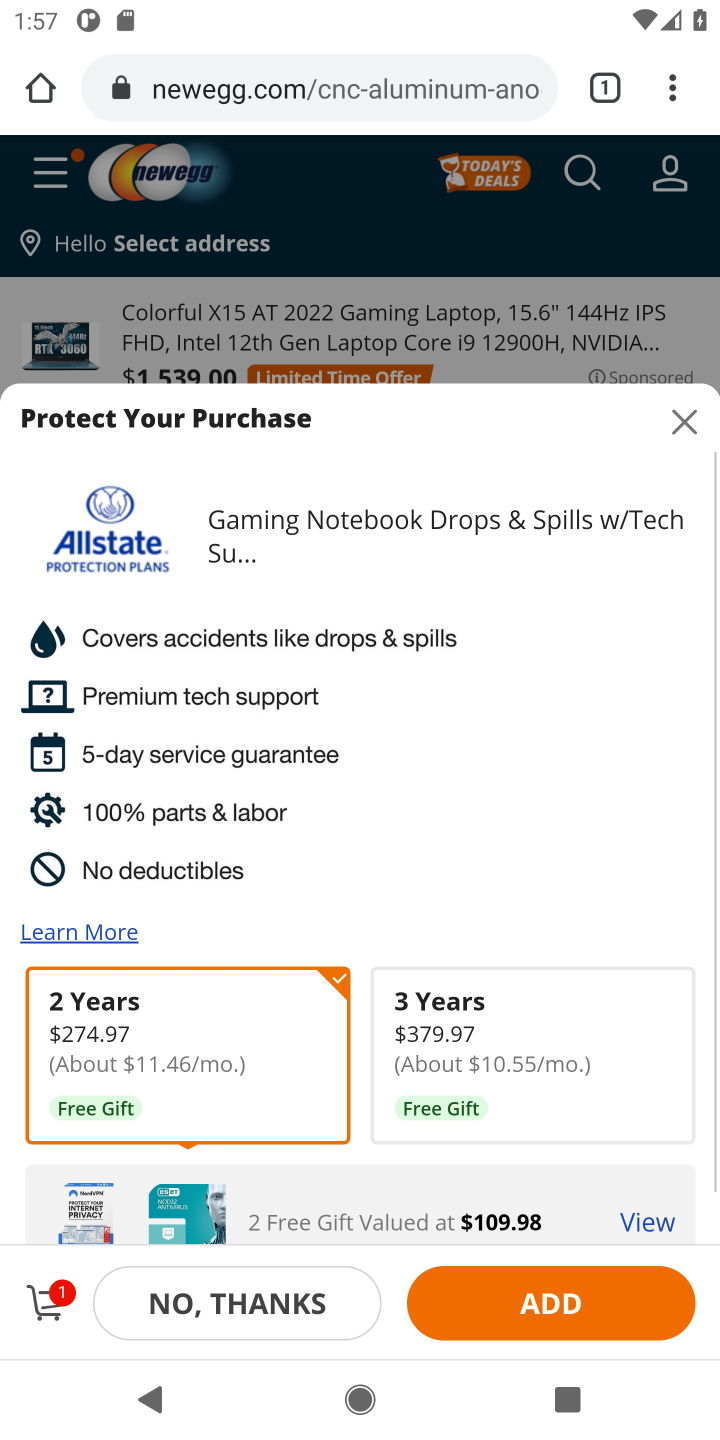
Step 29: task complete